Your task to perform on an android device: turn notification dots off Image 0: 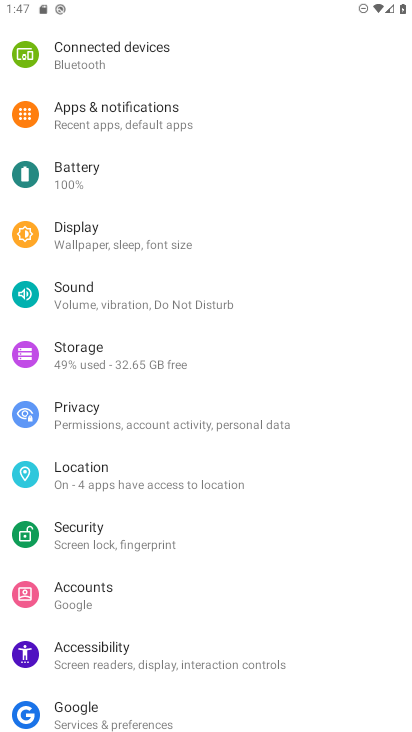
Step 0: click (225, 116)
Your task to perform on an android device: turn notification dots off Image 1: 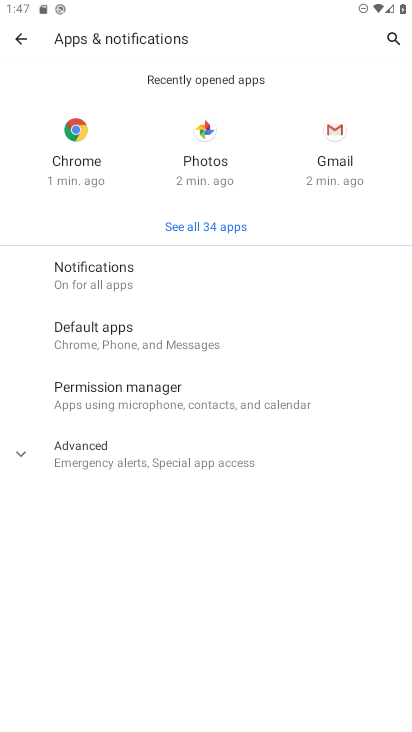
Step 1: click (200, 282)
Your task to perform on an android device: turn notification dots off Image 2: 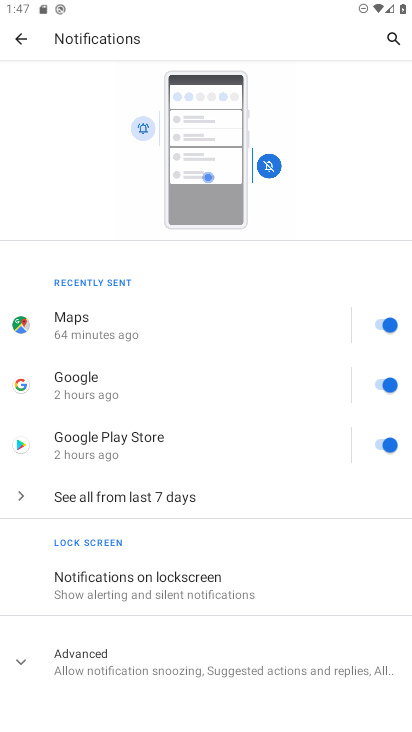
Step 2: drag from (206, 580) to (177, 246)
Your task to perform on an android device: turn notification dots off Image 3: 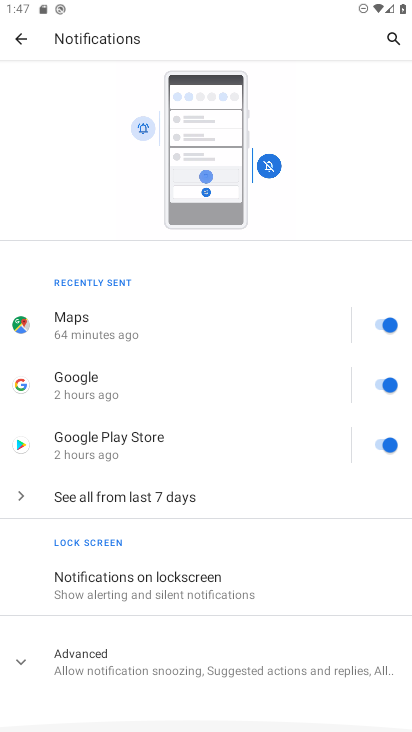
Step 3: click (117, 657)
Your task to perform on an android device: turn notification dots off Image 4: 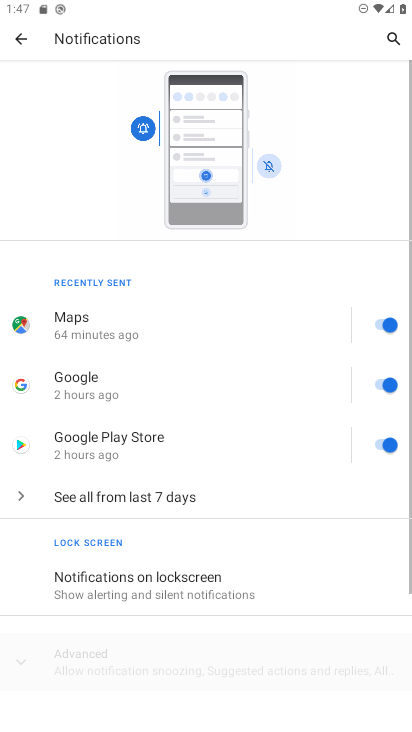
Step 4: drag from (131, 604) to (163, 338)
Your task to perform on an android device: turn notification dots off Image 5: 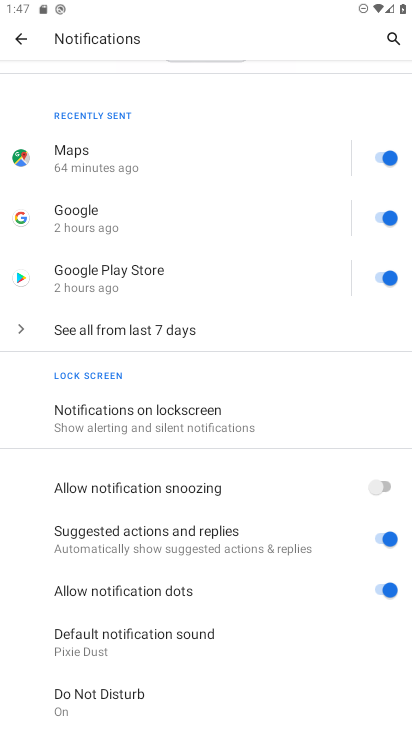
Step 5: click (388, 590)
Your task to perform on an android device: turn notification dots off Image 6: 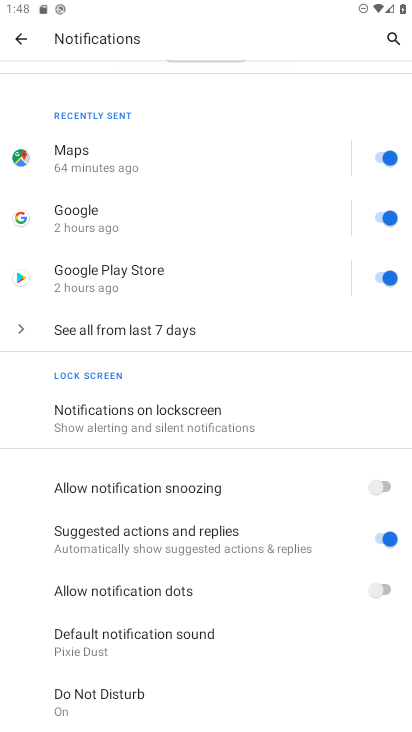
Step 6: task complete